Your task to perform on an android device: toggle location history Image 0: 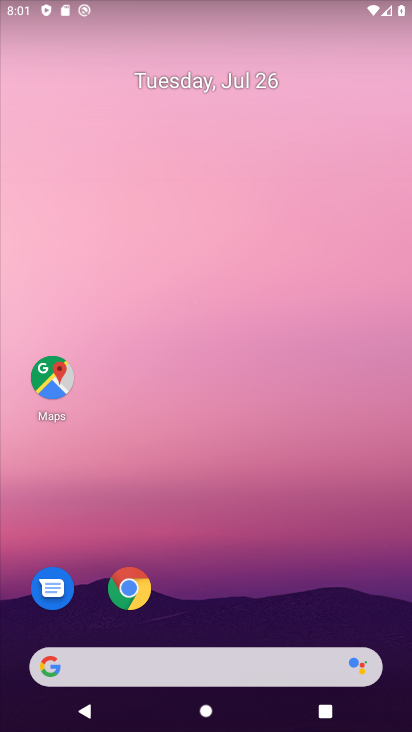
Step 0: drag from (326, 576) to (189, 64)
Your task to perform on an android device: toggle location history Image 1: 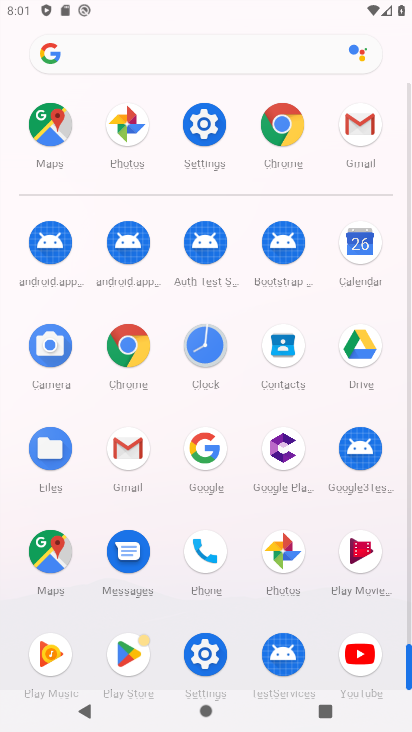
Step 1: click (213, 126)
Your task to perform on an android device: toggle location history Image 2: 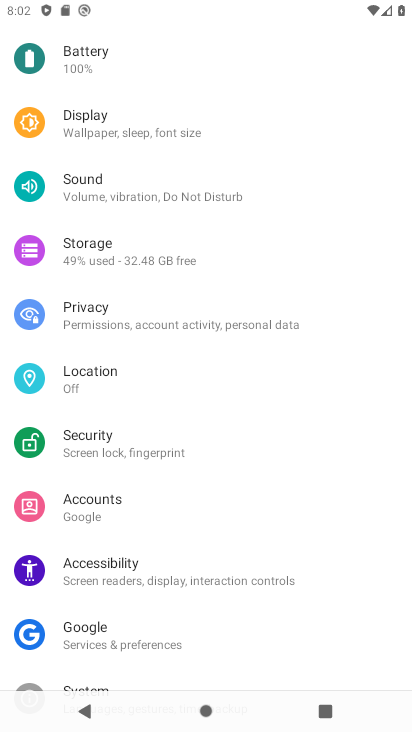
Step 2: click (76, 393)
Your task to perform on an android device: toggle location history Image 3: 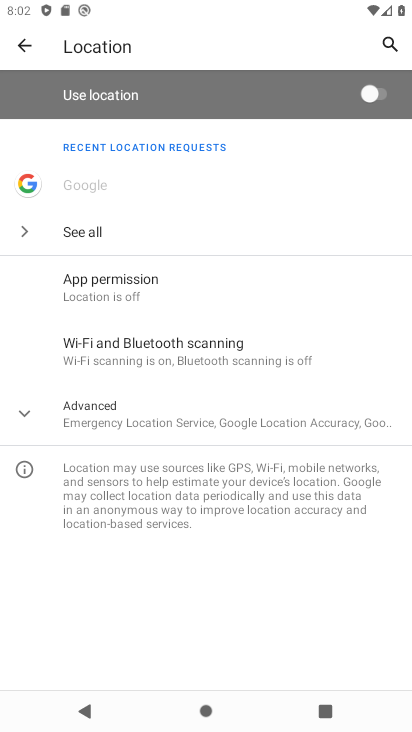
Step 3: click (347, 96)
Your task to perform on an android device: toggle location history Image 4: 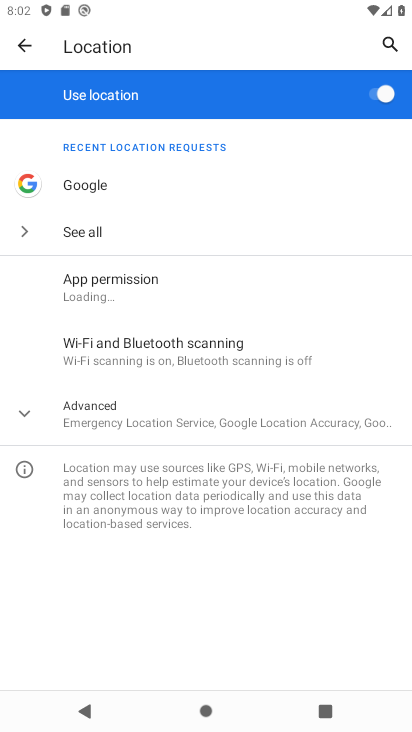
Step 4: click (204, 406)
Your task to perform on an android device: toggle location history Image 5: 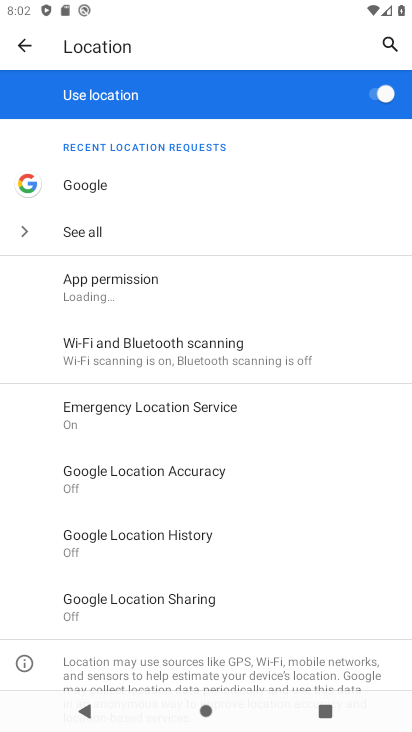
Step 5: click (188, 540)
Your task to perform on an android device: toggle location history Image 6: 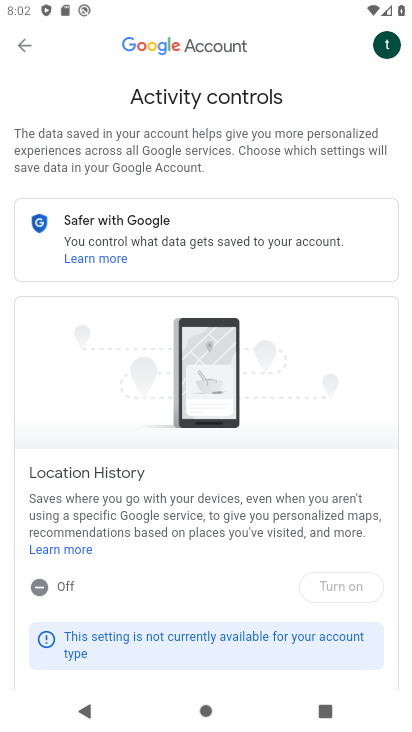
Step 6: task complete